Your task to perform on an android device: turn off picture-in-picture Image 0: 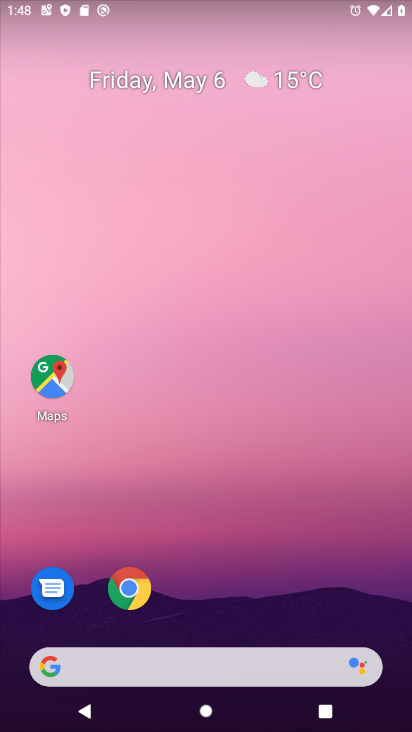
Step 0: drag from (242, 27) to (190, 0)
Your task to perform on an android device: turn off picture-in-picture Image 1: 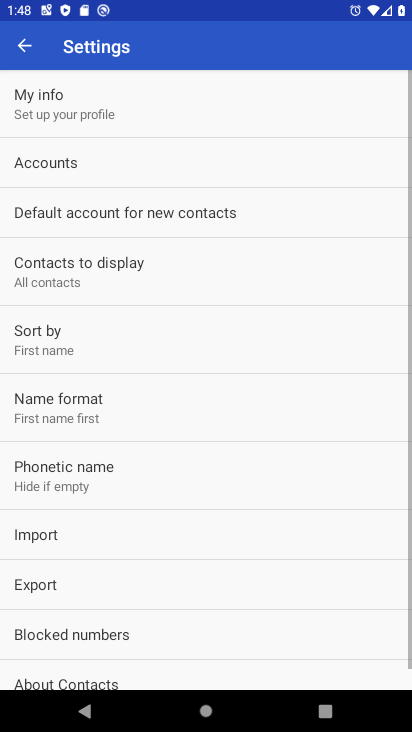
Step 1: drag from (199, 574) to (211, 234)
Your task to perform on an android device: turn off picture-in-picture Image 2: 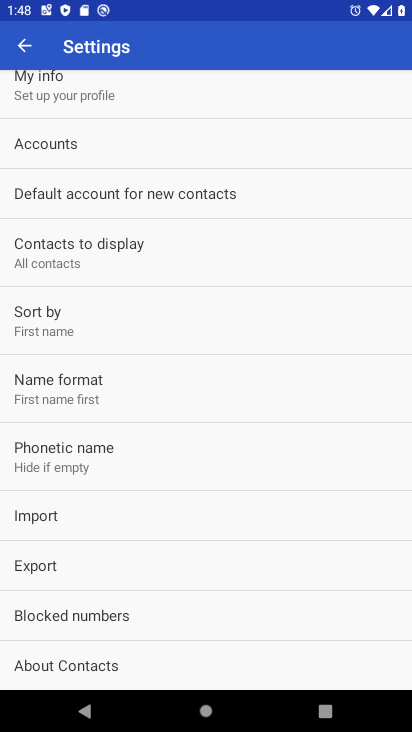
Step 2: drag from (187, 292) to (231, 718)
Your task to perform on an android device: turn off picture-in-picture Image 3: 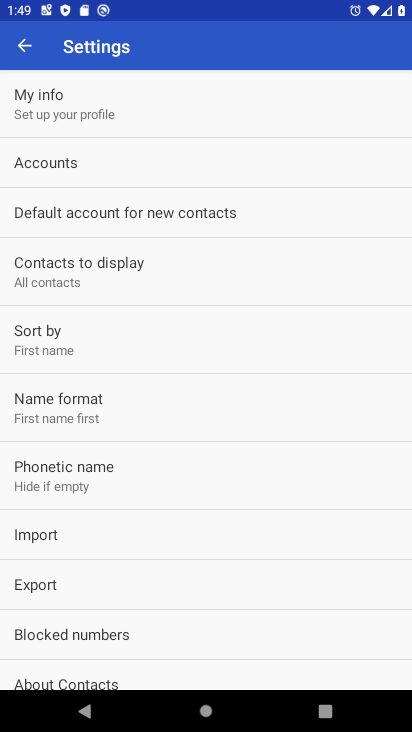
Step 3: click (28, 55)
Your task to perform on an android device: turn off picture-in-picture Image 4: 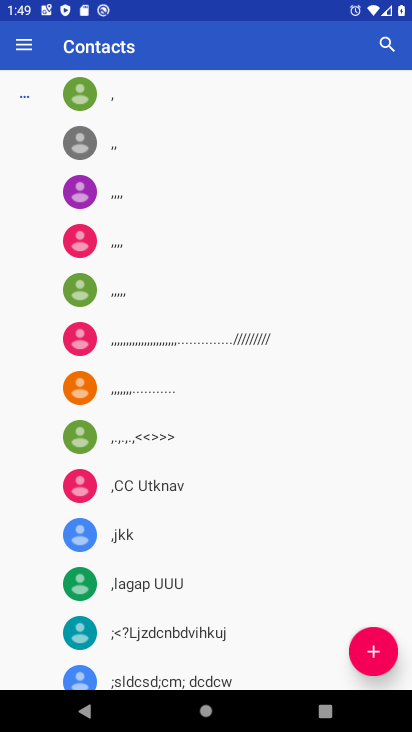
Step 4: press home button
Your task to perform on an android device: turn off picture-in-picture Image 5: 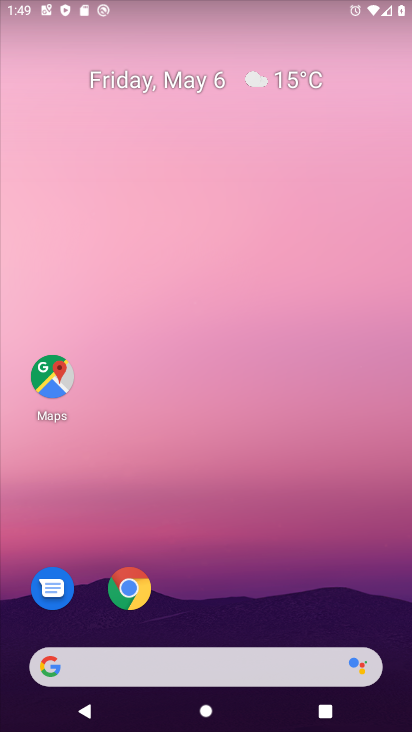
Step 5: drag from (212, 629) to (291, 100)
Your task to perform on an android device: turn off picture-in-picture Image 6: 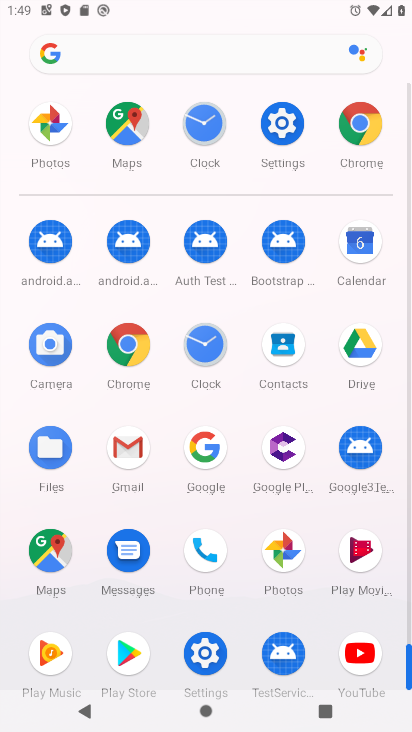
Step 6: click (285, 117)
Your task to perform on an android device: turn off picture-in-picture Image 7: 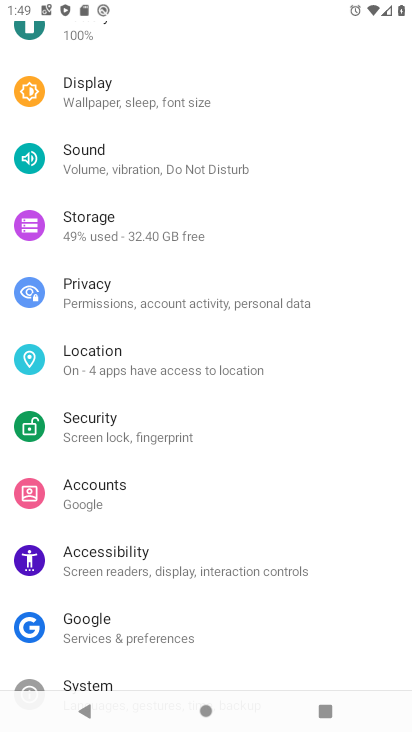
Step 7: drag from (208, 189) to (243, 652)
Your task to perform on an android device: turn off picture-in-picture Image 8: 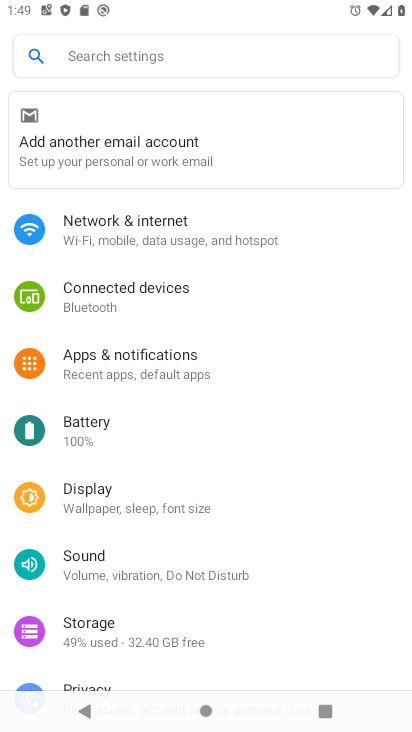
Step 8: click (127, 364)
Your task to perform on an android device: turn off picture-in-picture Image 9: 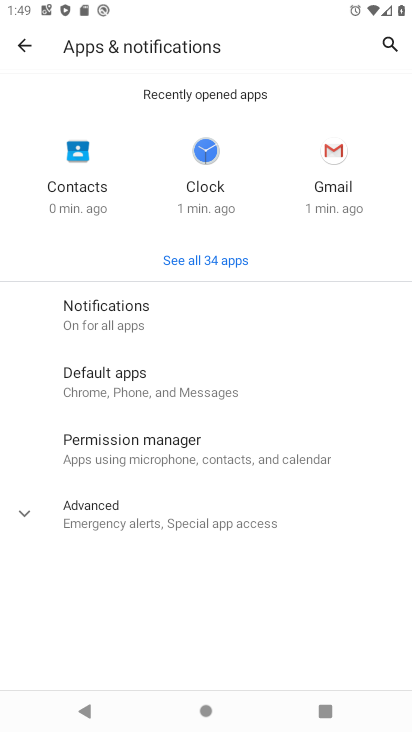
Step 9: click (126, 508)
Your task to perform on an android device: turn off picture-in-picture Image 10: 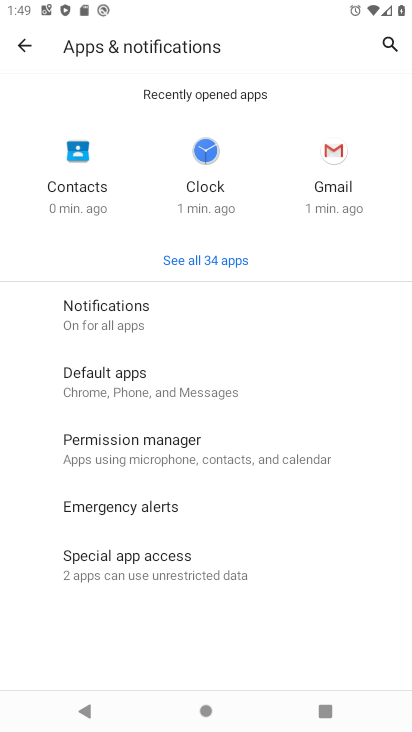
Step 10: click (164, 571)
Your task to perform on an android device: turn off picture-in-picture Image 11: 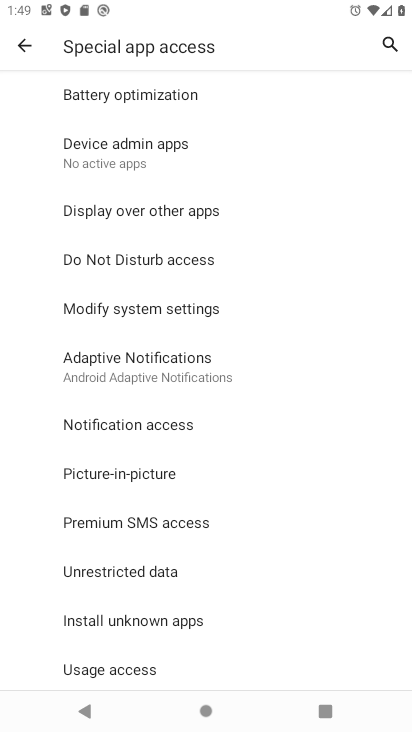
Step 11: click (141, 485)
Your task to perform on an android device: turn off picture-in-picture Image 12: 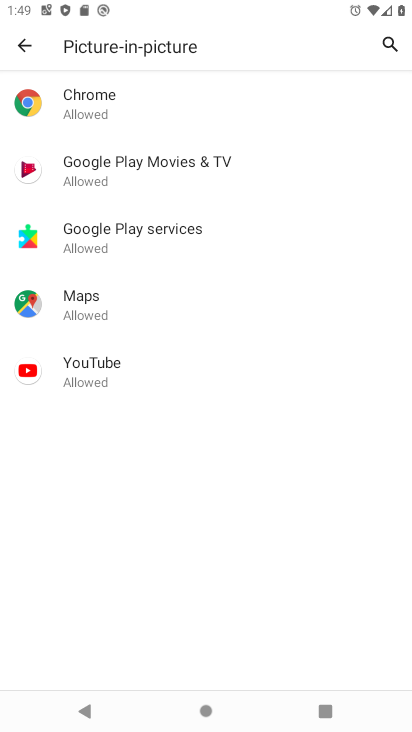
Step 12: click (178, 102)
Your task to perform on an android device: turn off picture-in-picture Image 13: 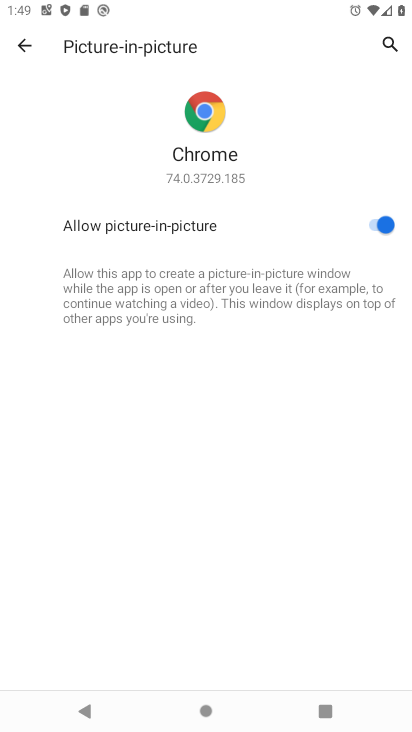
Step 13: click (382, 234)
Your task to perform on an android device: turn off picture-in-picture Image 14: 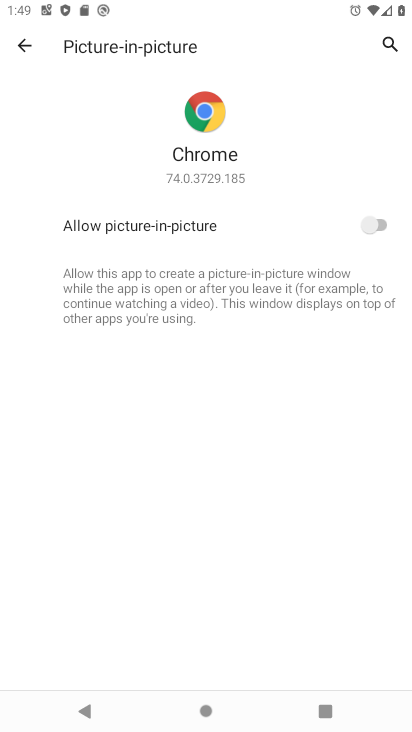
Step 14: task complete